Your task to perform on an android device: Open sound settings Image 0: 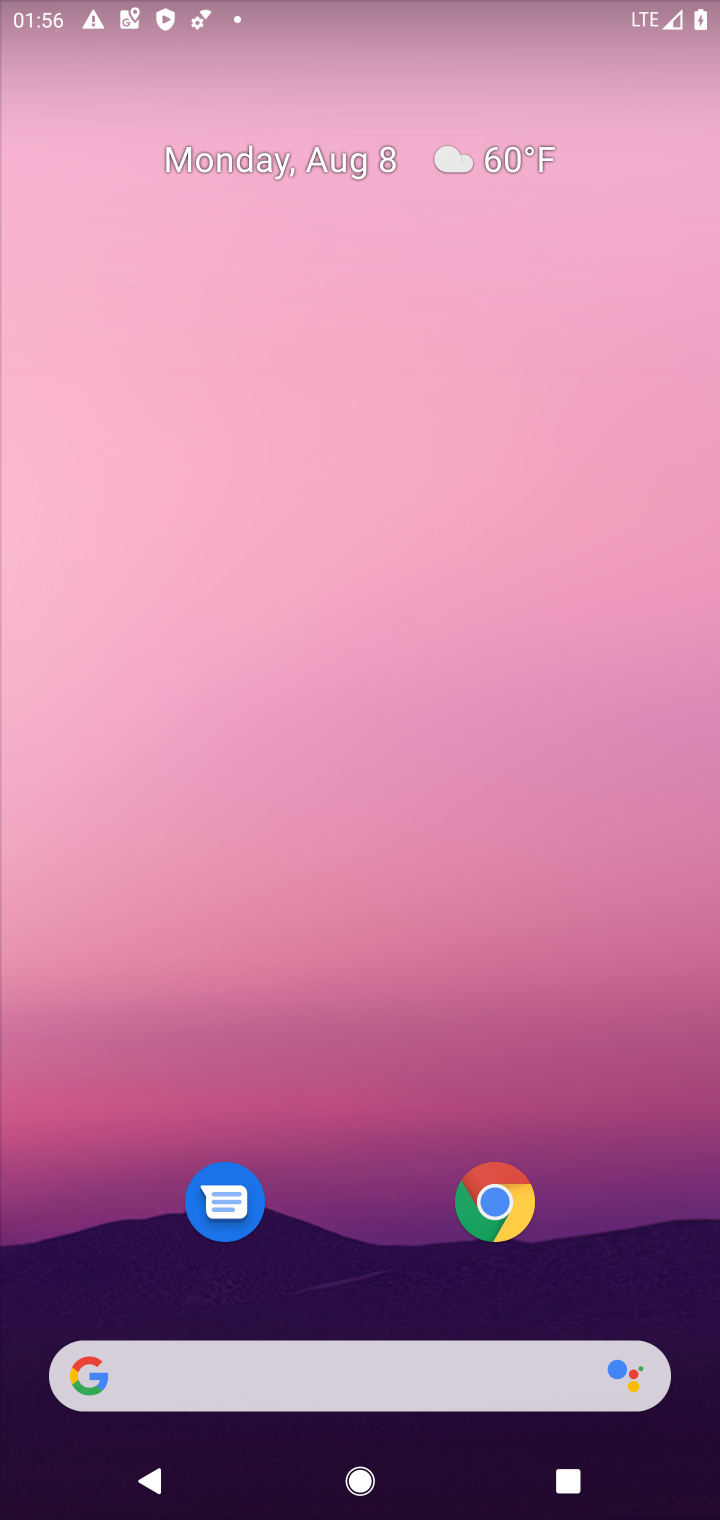
Step 0: drag from (366, 1115) to (360, 64)
Your task to perform on an android device: Open sound settings Image 1: 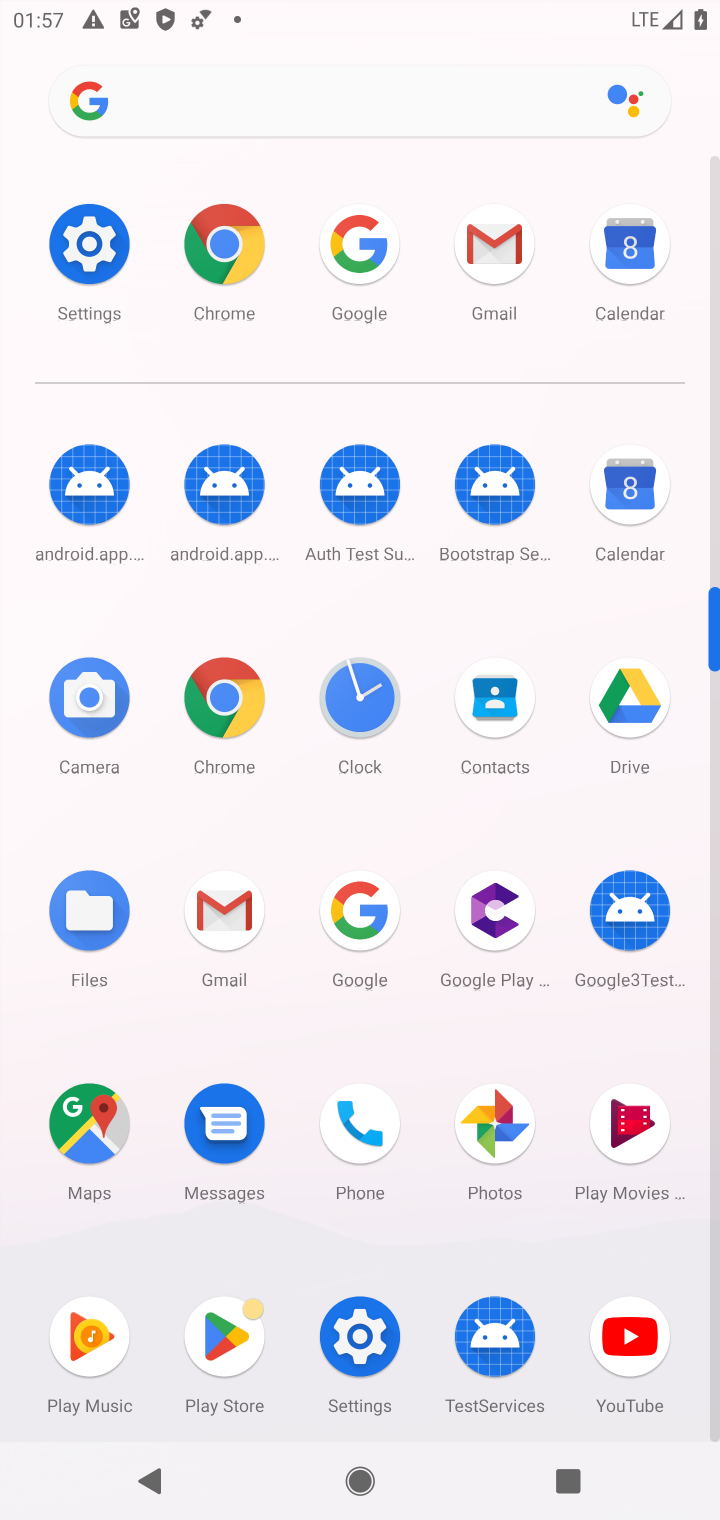
Step 1: click (84, 245)
Your task to perform on an android device: Open sound settings Image 2: 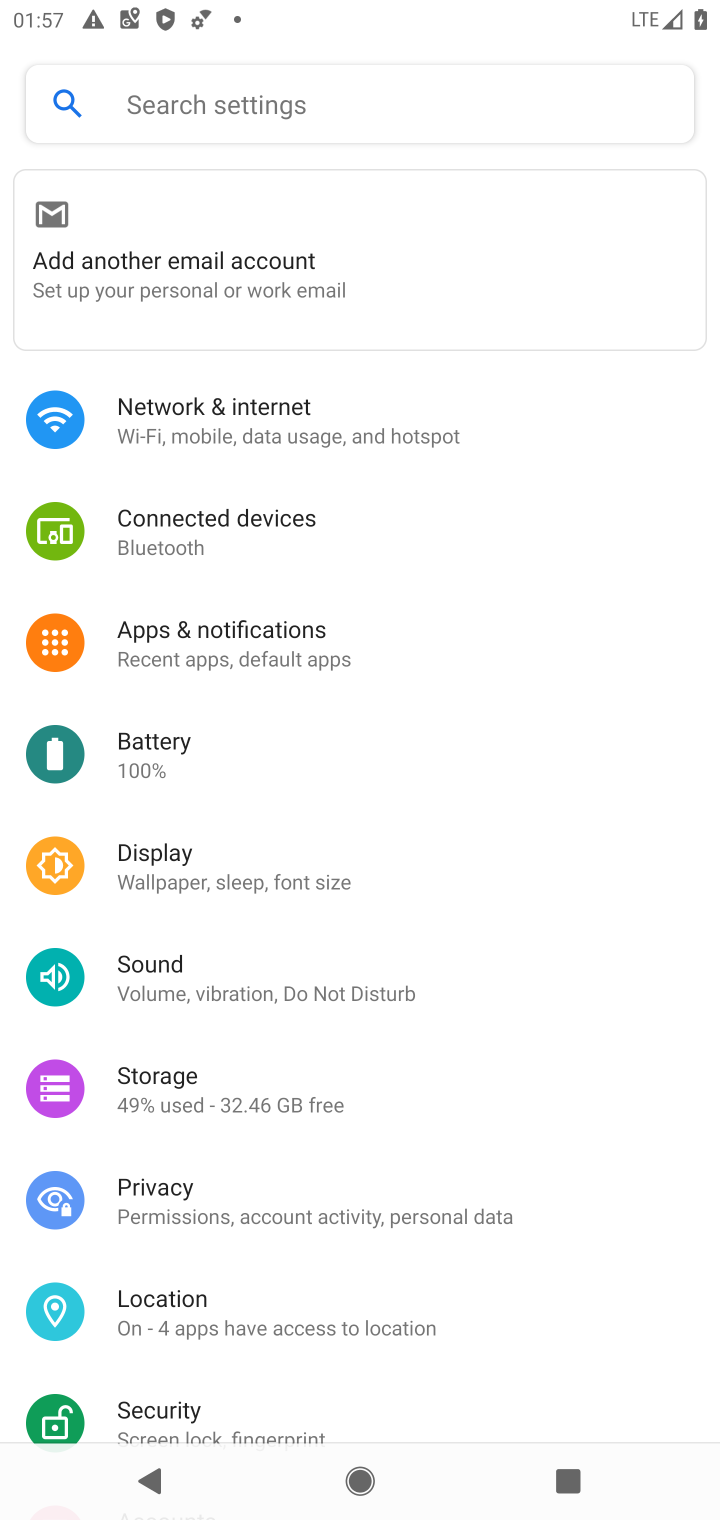
Step 2: click (251, 996)
Your task to perform on an android device: Open sound settings Image 3: 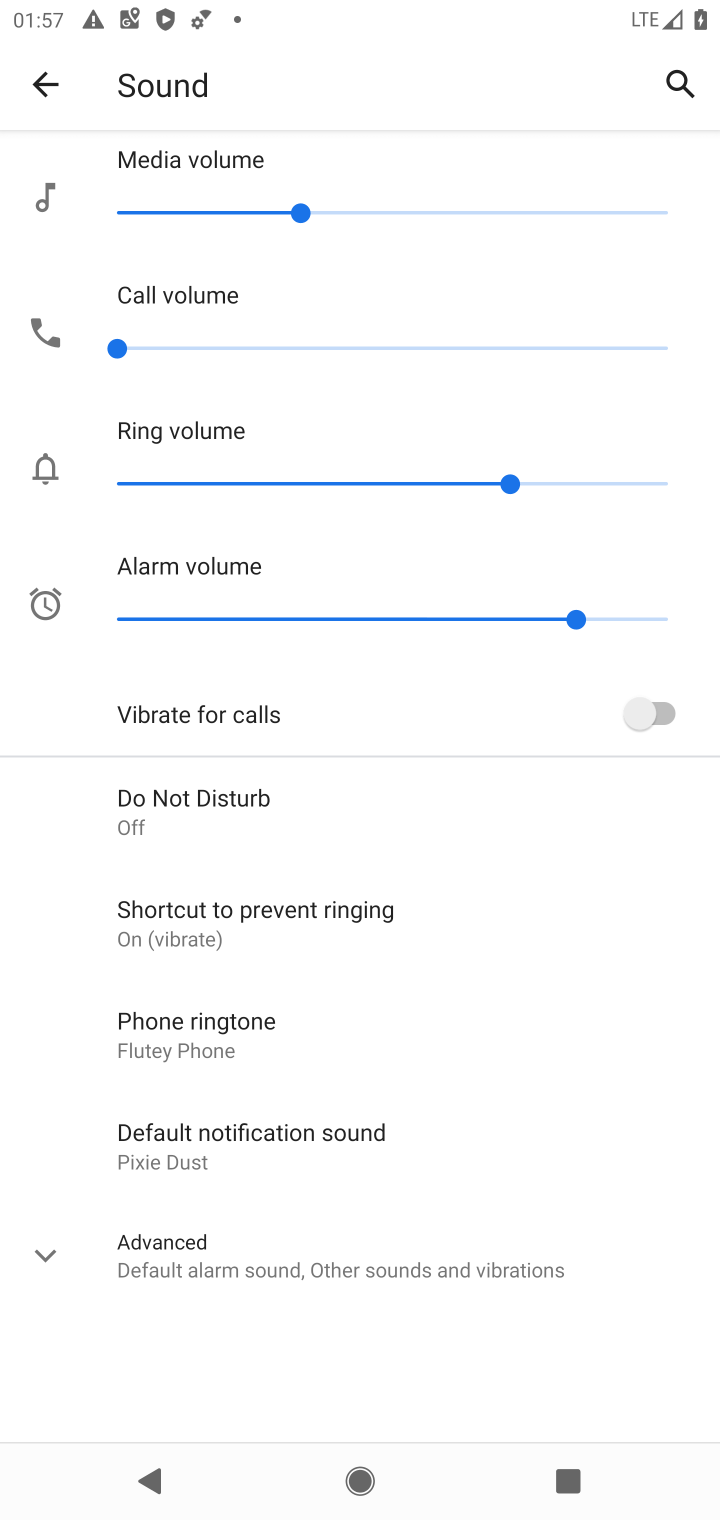
Step 3: task complete